Your task to perform on an android device: turn pop-ups on in chrome Image 0: 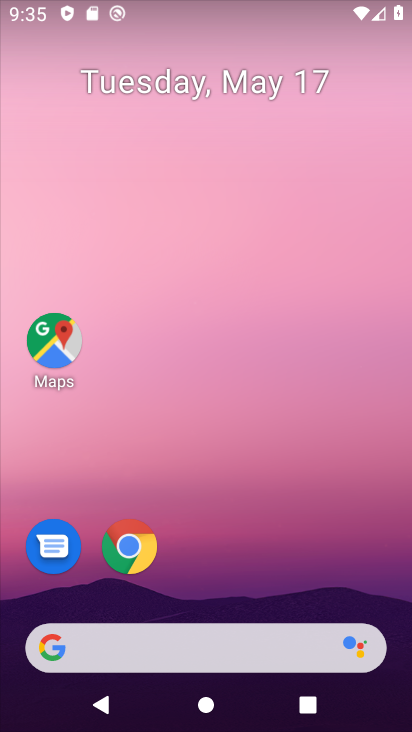
Step 0: drag from (272, 605) to (242, 263)
Your task to perform on an android device: turn pop-ups on in chrome Image 1: 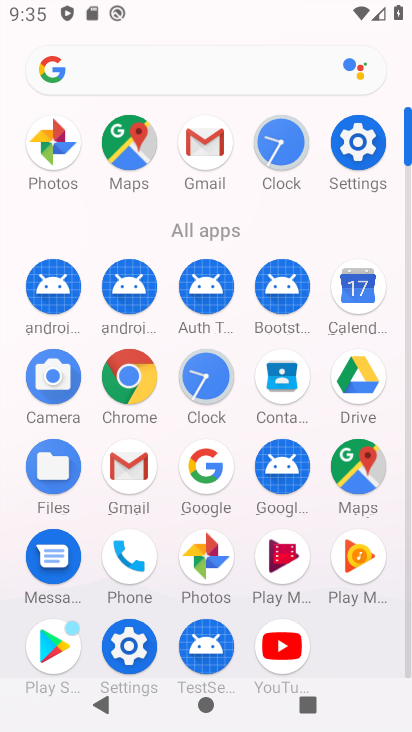
Step 1: click (121, 373)
Your task to perform on an android device: turn pop-ups on in chrome Image 2: 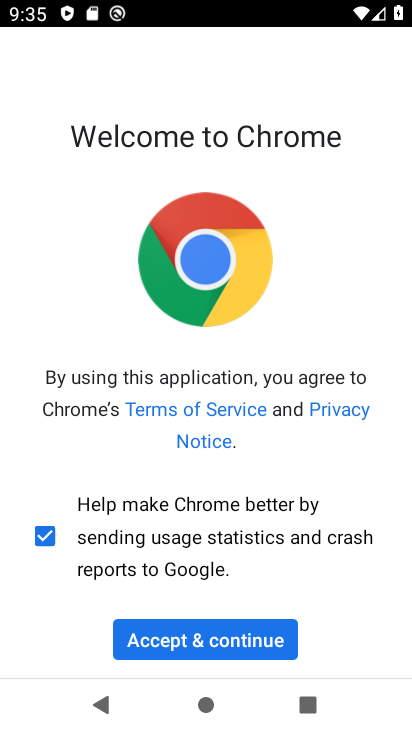
Step 2: click (223, 631)
Your task to perform on an android device: turn pop-ups on in chrome Image 3: 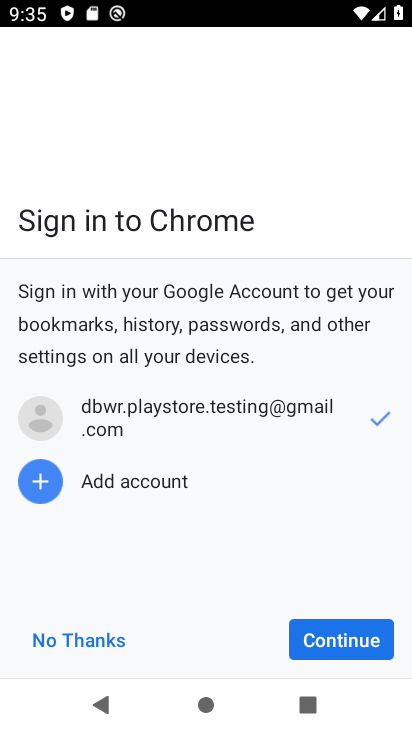
Step 3: click (362, 625)
Your task to perform on an android device: turn pop-ups on in chrome Image 4: 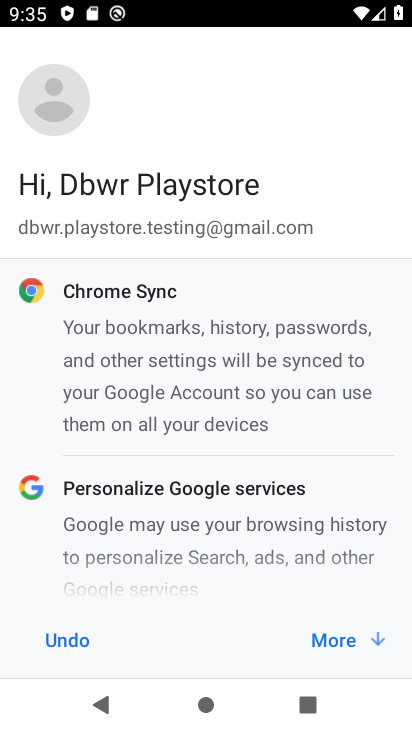
Step 4: click (332, 641)
Your task to perform on an android device: turn pop-ups on in chrome Image 5: 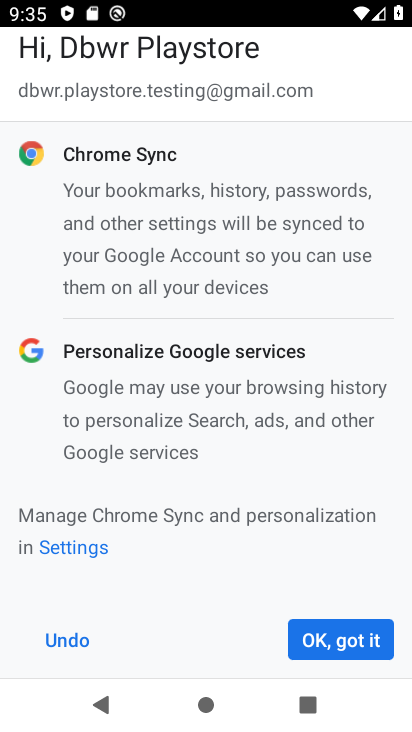
Step 5: click (318, 630)
Your task to perform on an android device: turn pop-ups on in chrome Image 6: 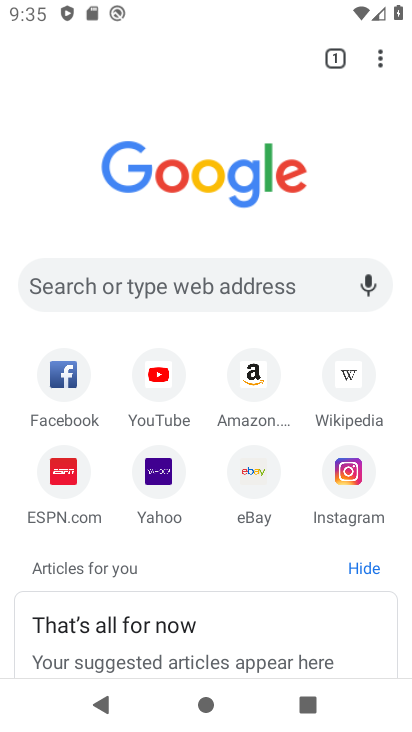
Step 6: click (375, 63)
Your task to perform on an android device: turn pop-ups on in chrome Image 7: 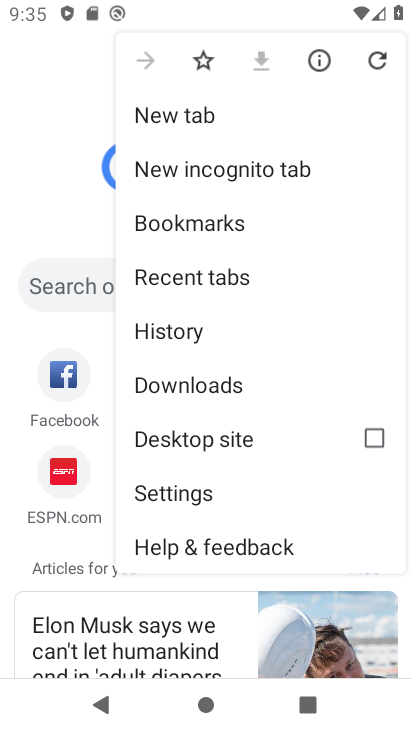
Step 7: click (209, 487)
Your task to perform on an android device: turn pop-ups on in chrome Image 8: 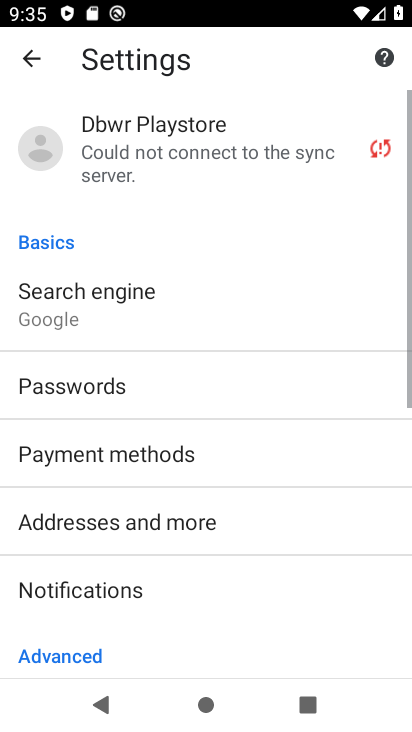
Step 8: drag from (168, 635) to (227, 217)
Your task to perform on an android device: turn pop-ups on in chrome Image 9: 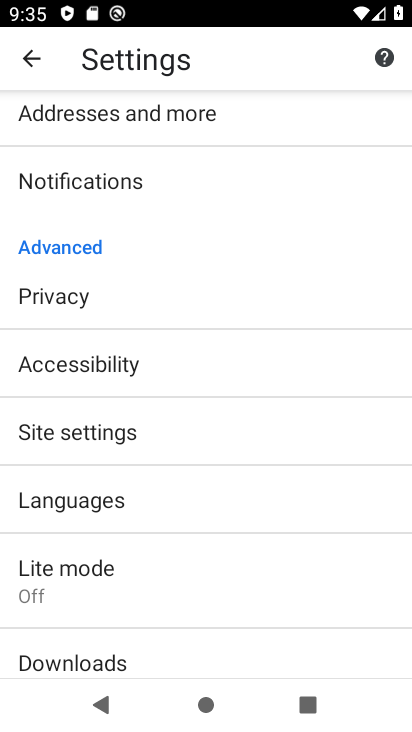
Step 9: click (133, 419)
Your task to perform on an android device: turn pop-ups on in chrome Image 10: 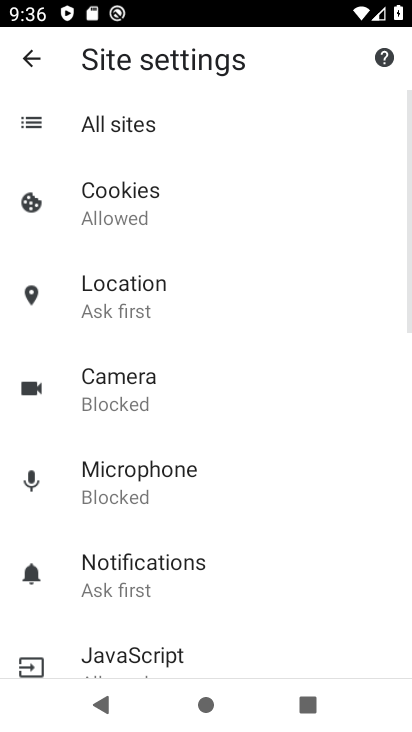
Step 10: drag from (176, 621) to (194, 249)
Your task to perform on an android device: turn pop-ups on in chrome Image 11: 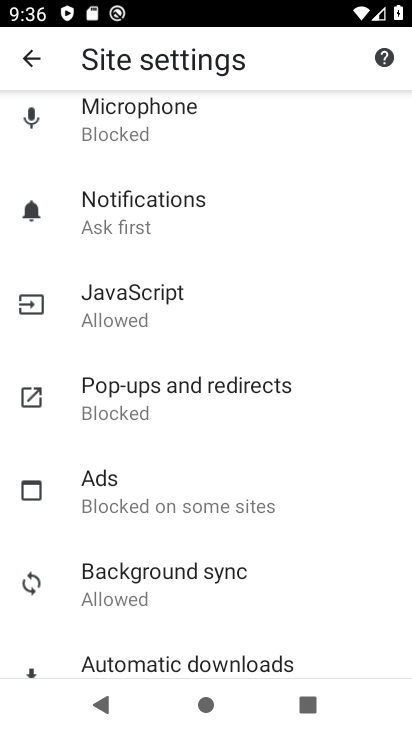
Step 11: click (183, 390)
Your task to perform on an android device: turn pop-ups on in chrome Image 12: 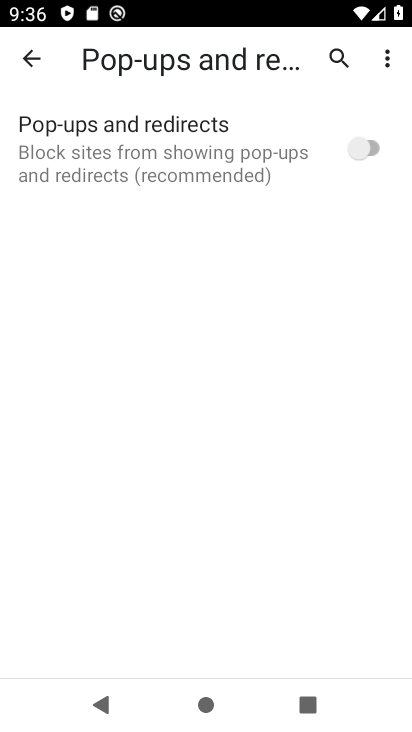
Step 12: click (381, 143)
Your task to perform on an android device: turn pop-ups on in chrome Image 13: 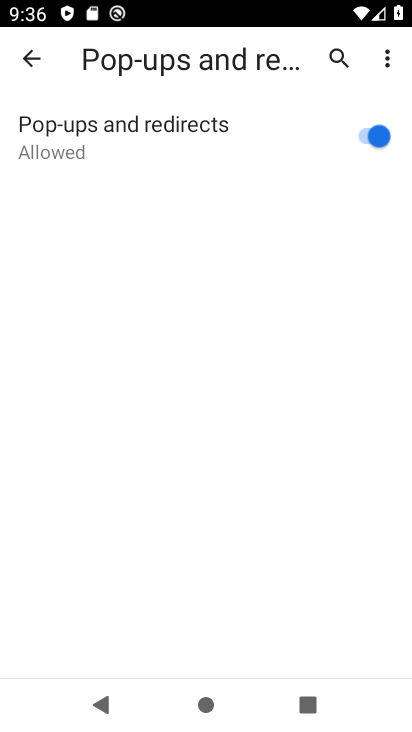
Step 13: task complete